Your task to perform on an android device: empty trash in google photos Image 0: 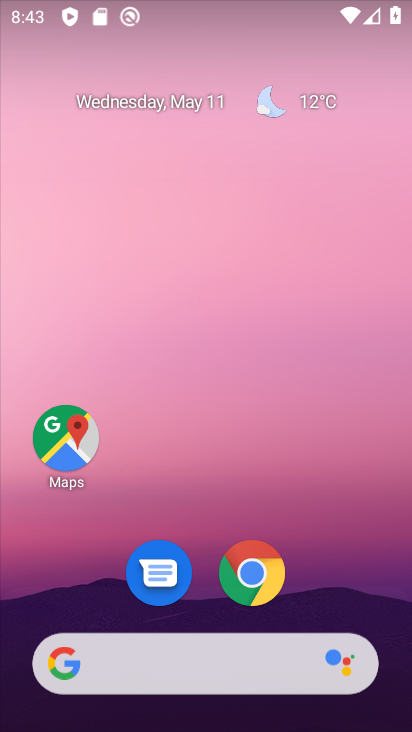
Step 0: drag from (233, 664) to (271, 4)
Your task to perform on an android device: empty trash in google photos Image 1: 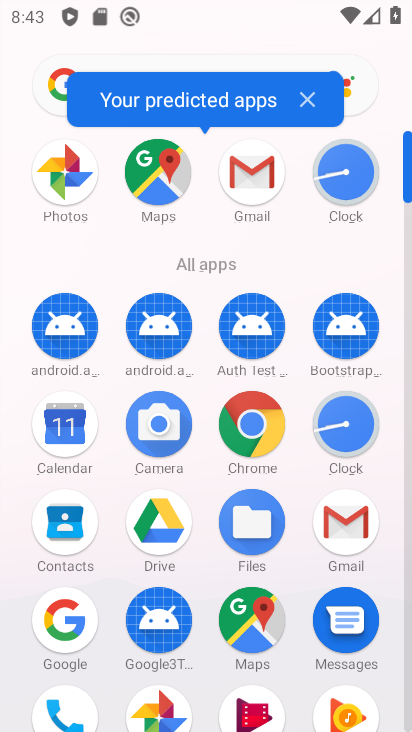
Step 1: click (149, 699)
Your task to perform on an android device: empty trash in google photos Image 2: 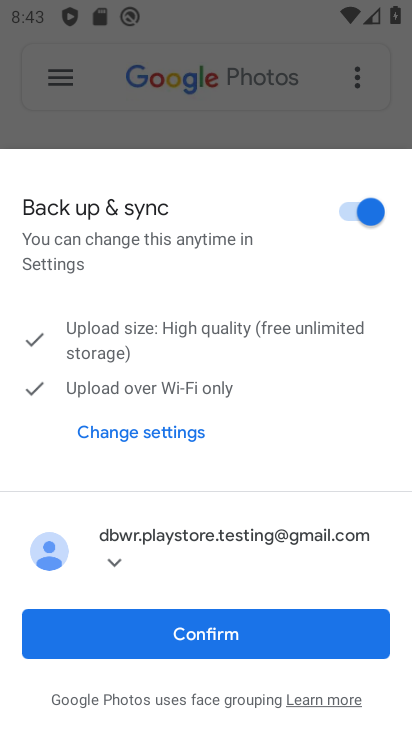
Step 2: click (209, 645)
Your task to perform on an android device: empty trash in google photos Image 3: 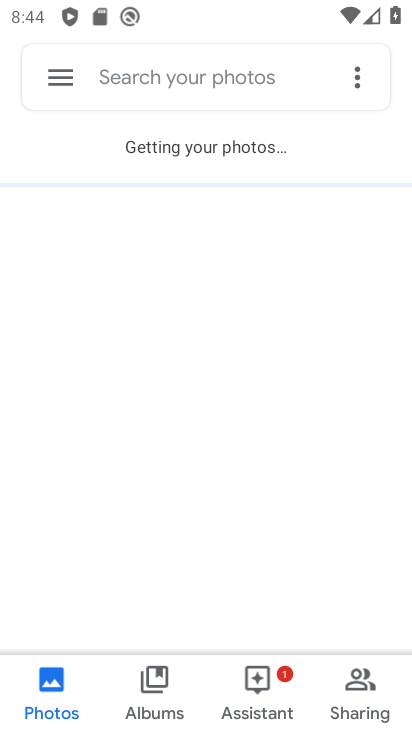
Step 3: click (55, 74)
Your task to perform on an android device: empty trash in google photos Image 4: 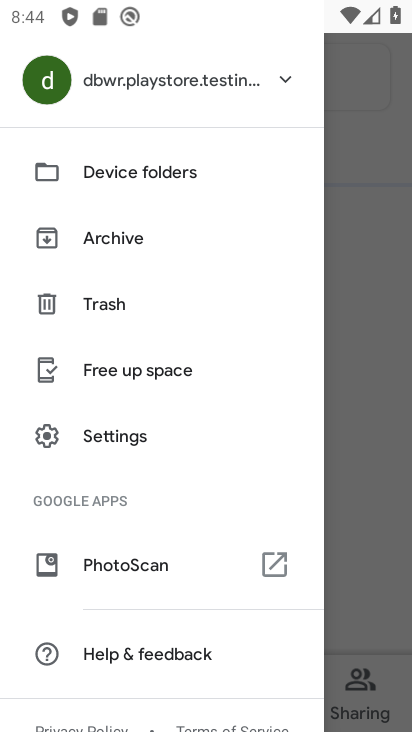
Step 4: click (149, 312)
Your task to perform on an android device: empty trash in google photos Image 5: 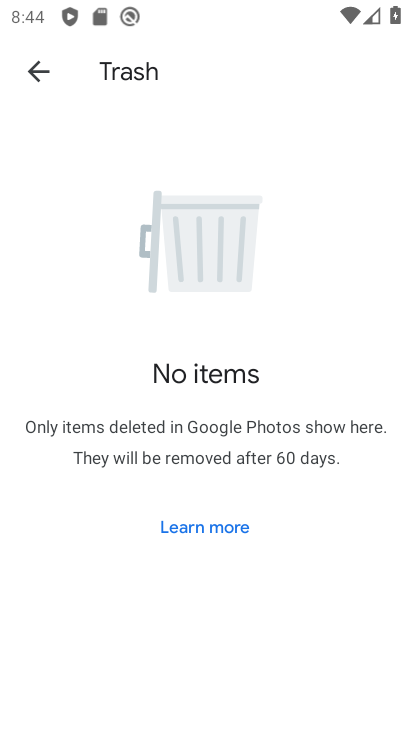
Step 5: task complete